Your task to perform on an android device: Turn on the flashlight Image 0: 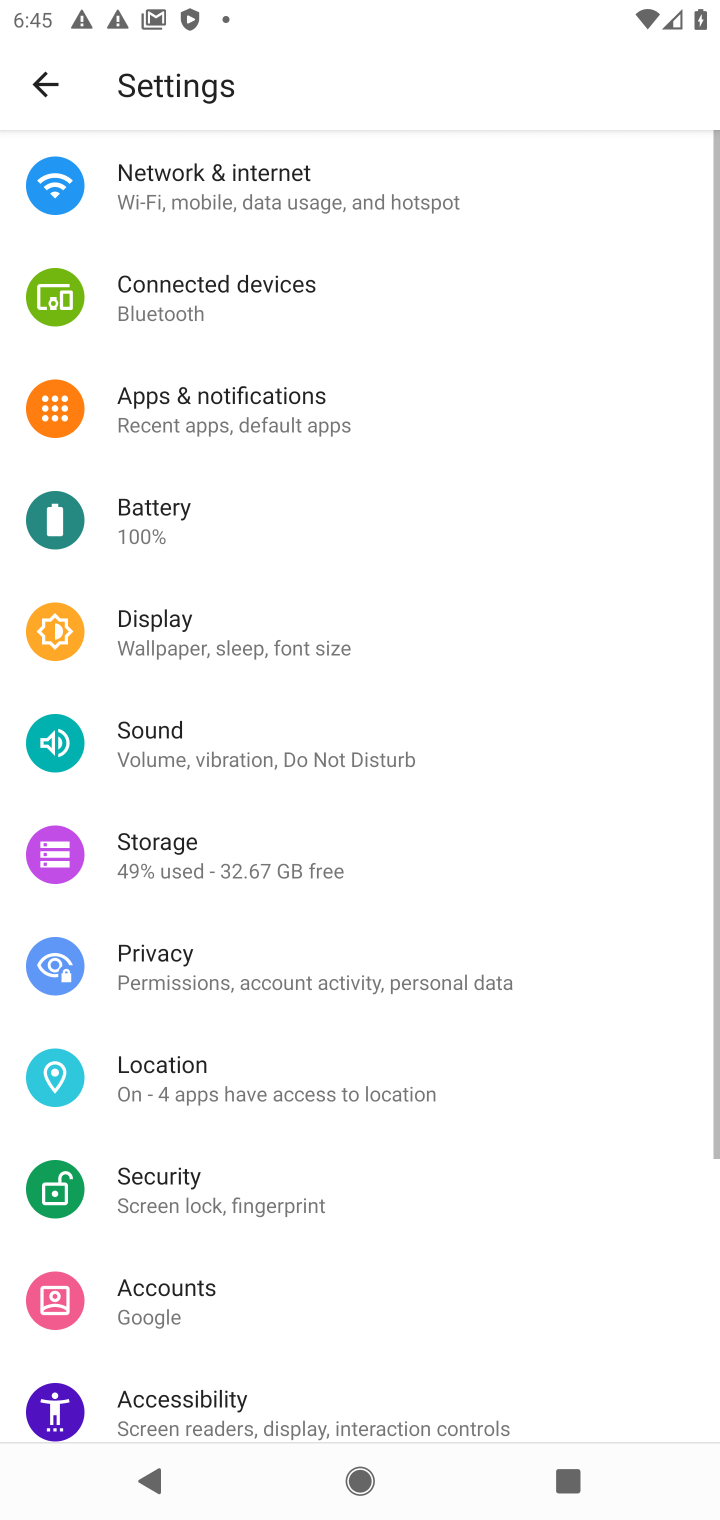
Step 0: click (144, 631)
Your task to perform on an android device: Turn on the flashlight Image 1: 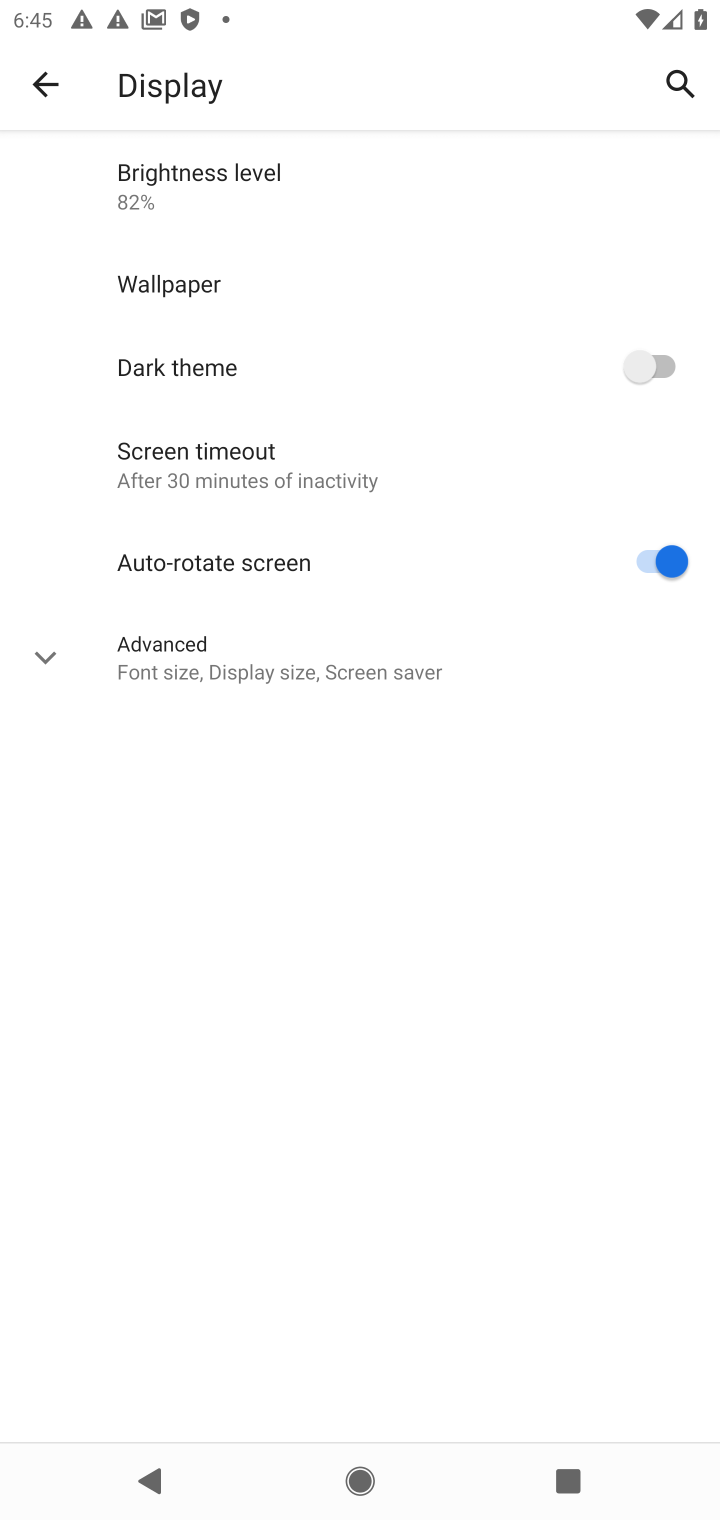
Step 1: click (48, 78)
Your task to perform on an android device: Turn on the flashlight Image 2: 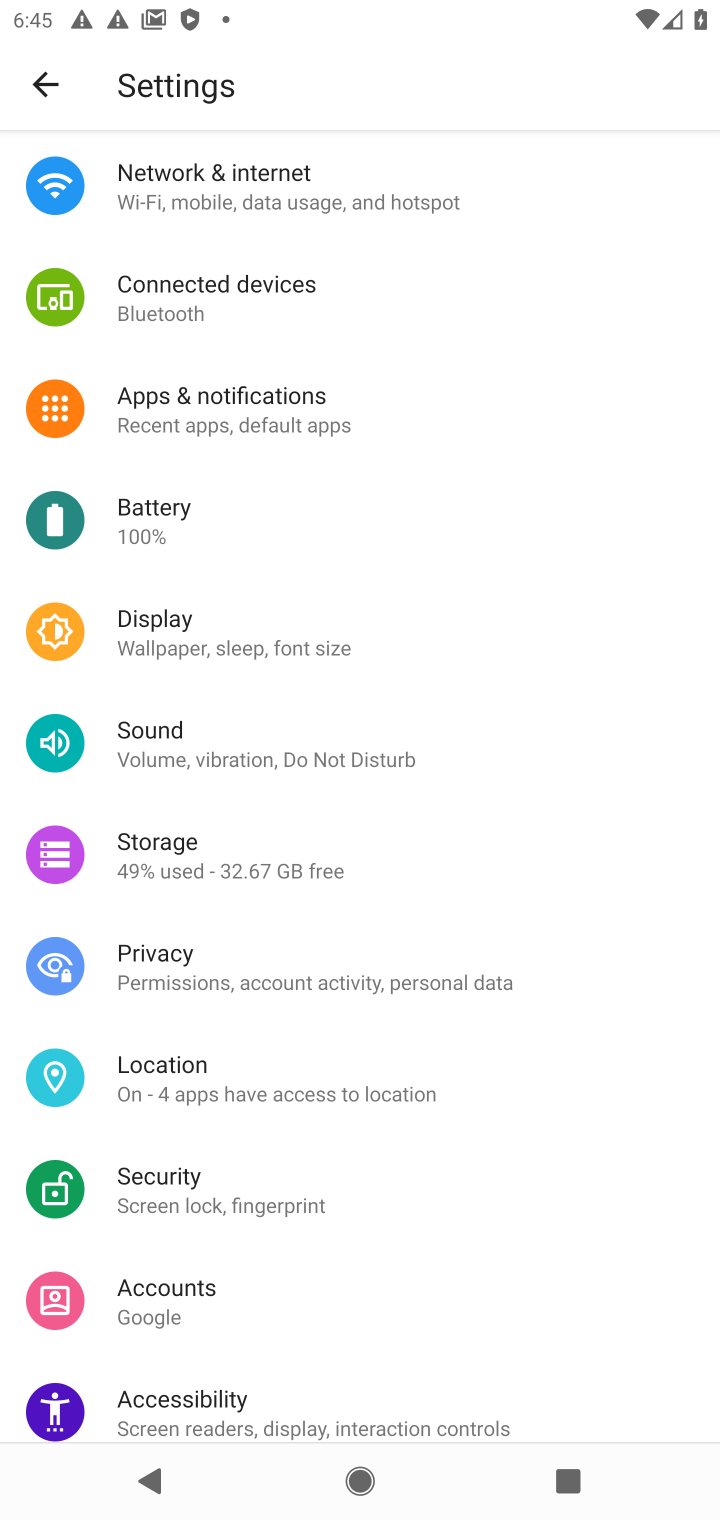
Step 2: task complete